Your task to perform on an android device: turn off improve location accuracy Image 0: 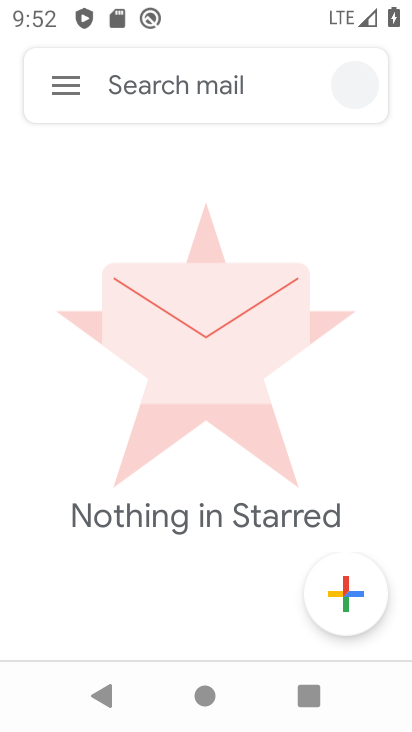
Step 0: press home button
Your task to perform on an android device: turn off improve location accuracy Image 1: 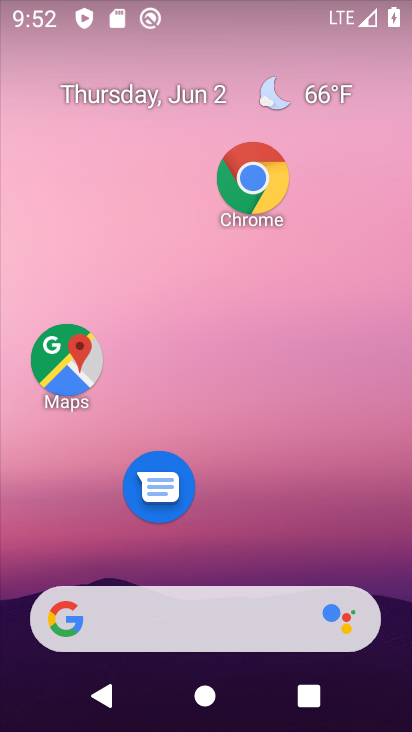
Step 1: drag from (224, 726) to (199, 46)
Your task to perform on an android device: turn off improve location accuracy Image 2: 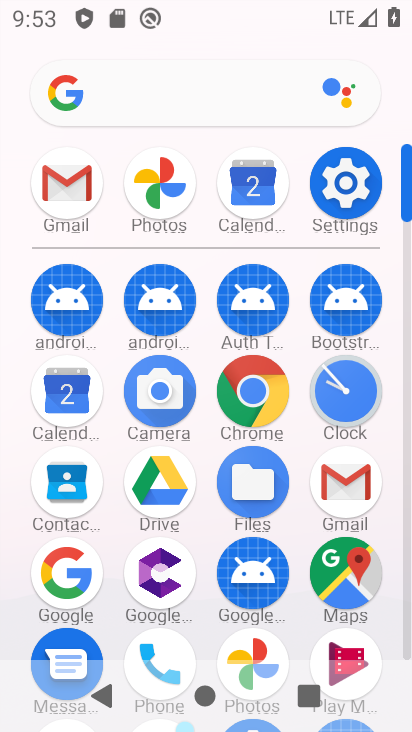
Step 2: click (356, 190)
Your task to perform on an android device: turn off improve location accuracy Image 3: 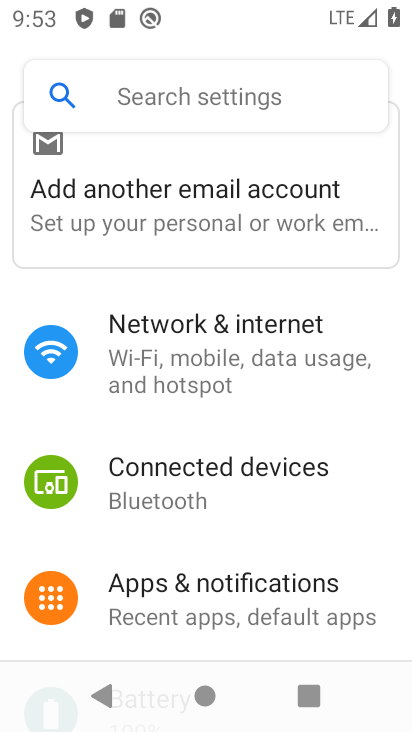
Step 3: drag from (249, 508) to (253, 180)
Your task to perform on an android device: turn off improve location accuracy Image 4: 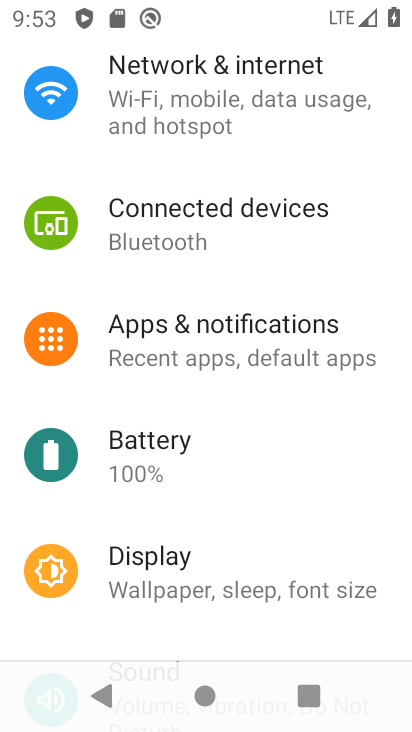
Step 4: drag from (207, 635) to (203, 172)
Your task to perform on an android device: turn off improve location accuracy Image 5: 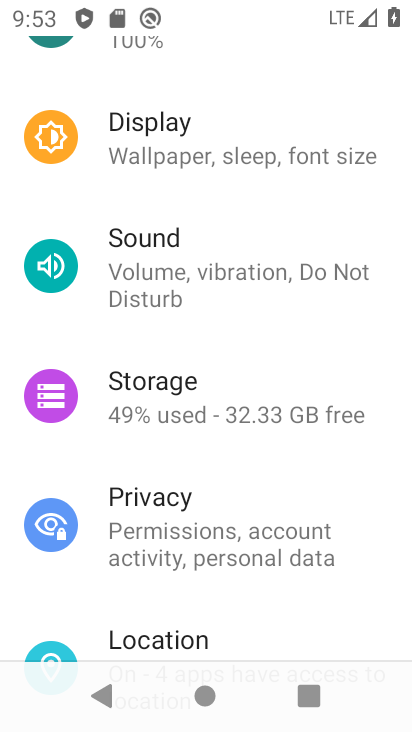
Step 5: click (165, 630)
Your task to perform on an android device: turn off improve location accuracy Image 6: 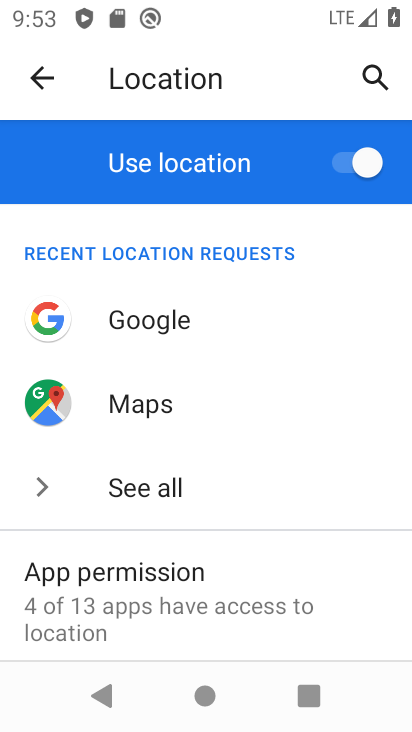
Step 6: drag from (184, 646) to (198, 309)
Your task to perform on an android device: turn off improve location accuracy Image 7: 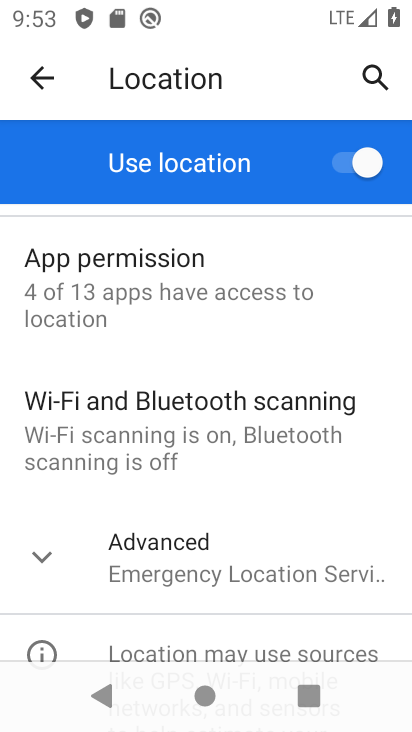
Step 7: click (200, 560)
Your task to perform on an android device: turn off improve location accuracy Image 8: 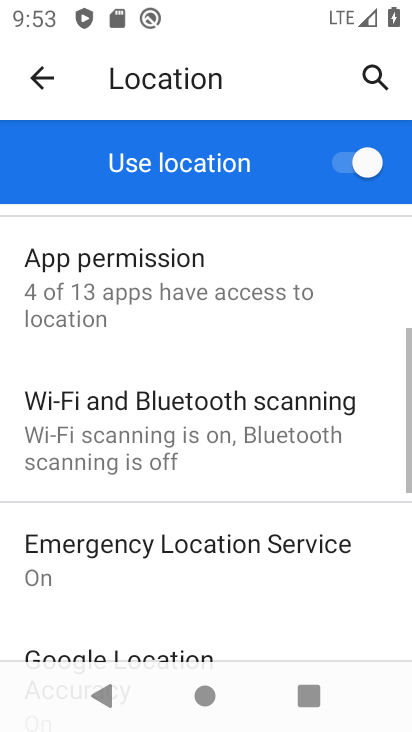
Step 8: drag from (192, 630) to (194, 307)
Your task to perform on an android device: turn off improve location accuracy Image 9: 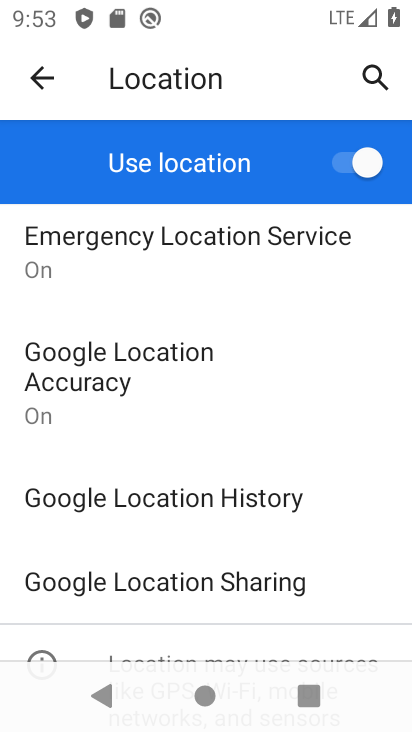
Step 9: click (98, 375)
Your task to perform on an android device: turn off improve location accuracy Image 10: 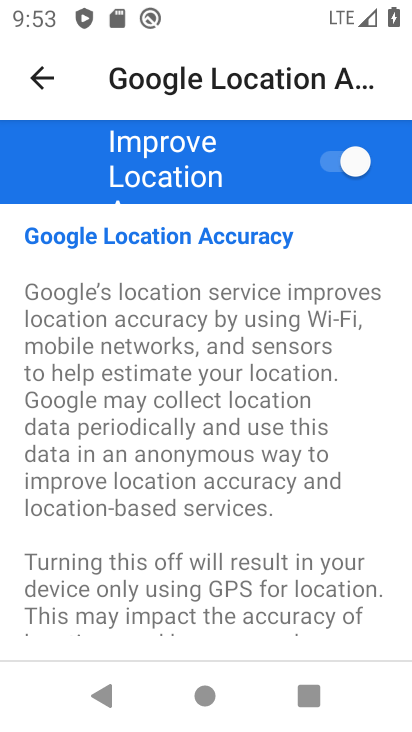
Step 10: click (331, 152)
Your task to perform on an android device: turn off improve location accuracy Image 11: 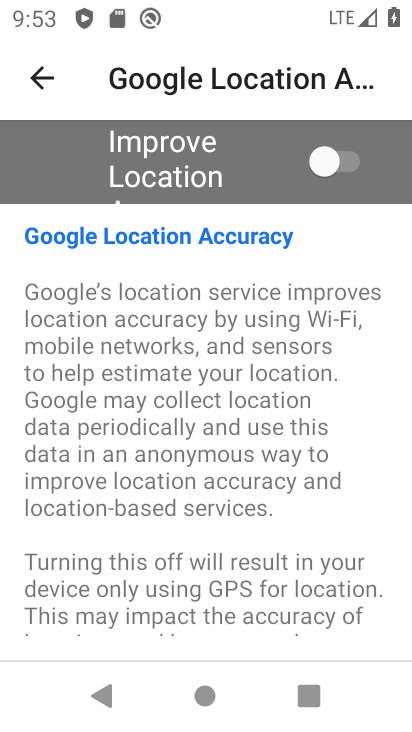
Step 11: task complete